Your task to perform on an android device: move an email to a new category in the gmail app Image 0: 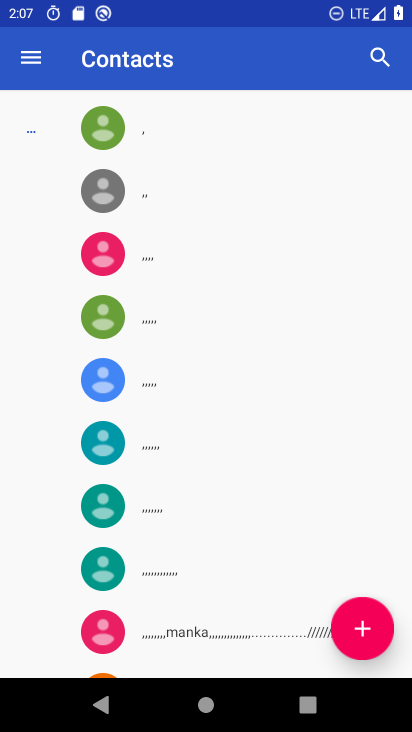
Step 0: press home button
Your task to perform on an android device: move an email to a new category in the gmail app Image 1: 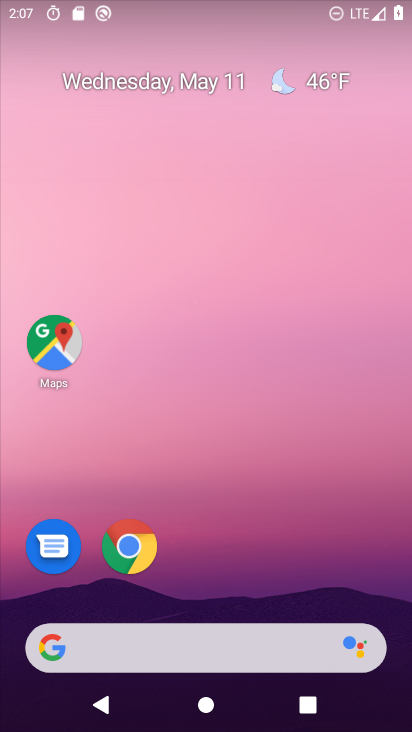
Step 1: drag from (252, 670) to (174, 172)
Your task to perform on an android device: move an email to a new category in the gmail app Image 2: 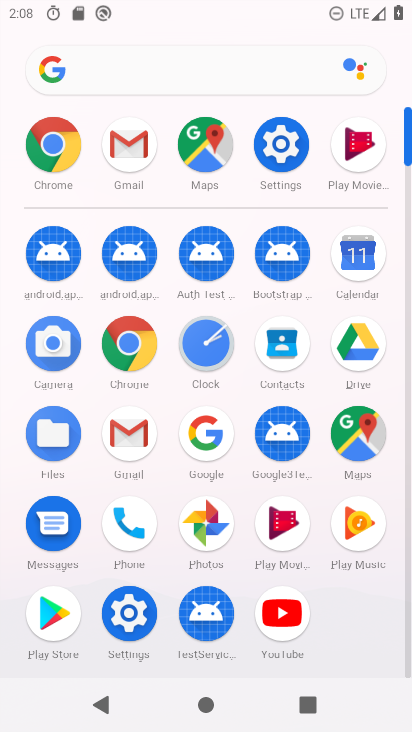
Step 2: click (137, 428)
Your task to perform on an android device: move an email to a new category in the gmail app Image 3: 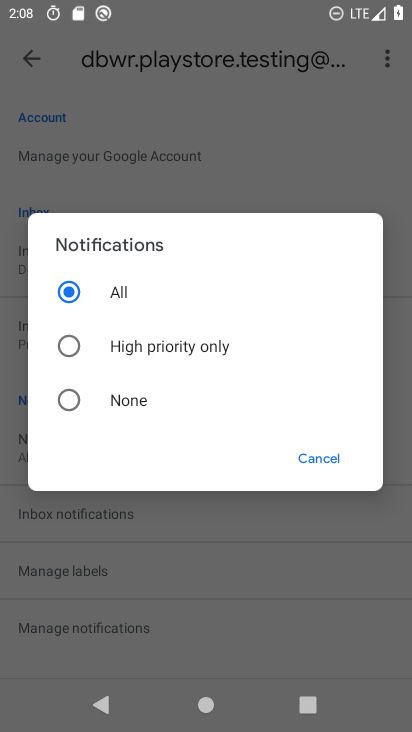
Step 3: click (239, 544)
Your task to perform on an android device: move an email to a new category in the gmail app Image 4: 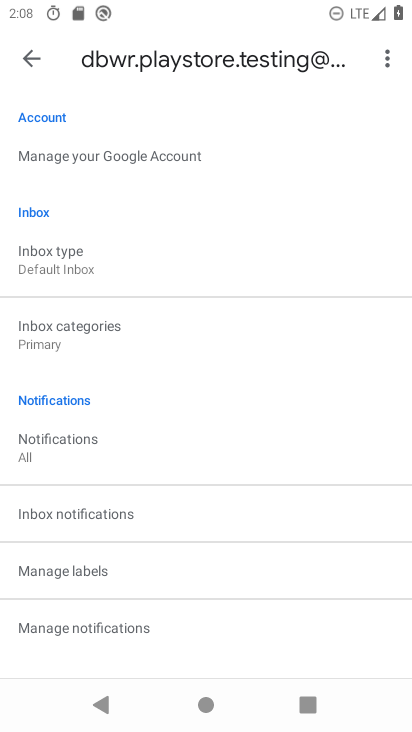
Step 4: click (73, 336)
Your task to perform on an android device: move an email to a new category in the gmail app Image 5: 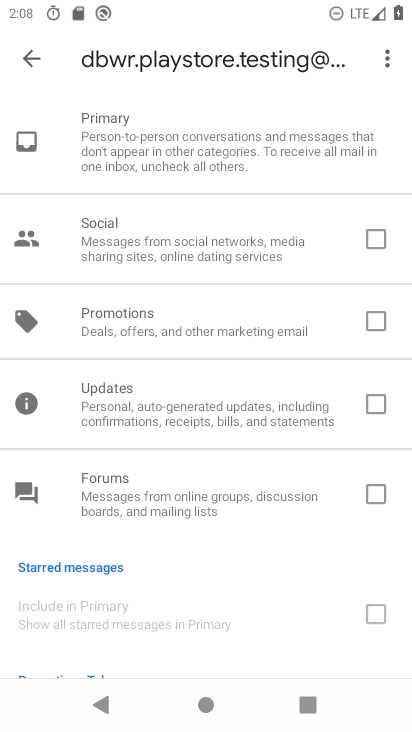
Step 5: click (376, 239)
Your task to perform on an android device: move an email to a new category in the gmail app Image 6: 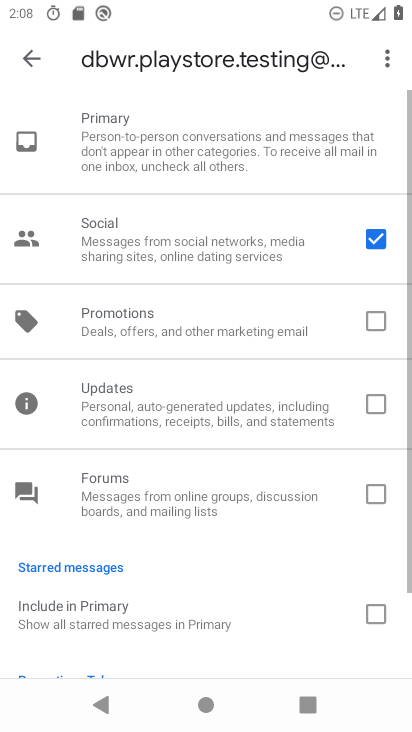
Step 6: task complete